Your task to perform on an android device: Open Youtube and go to the subscriptions tab Image 0: 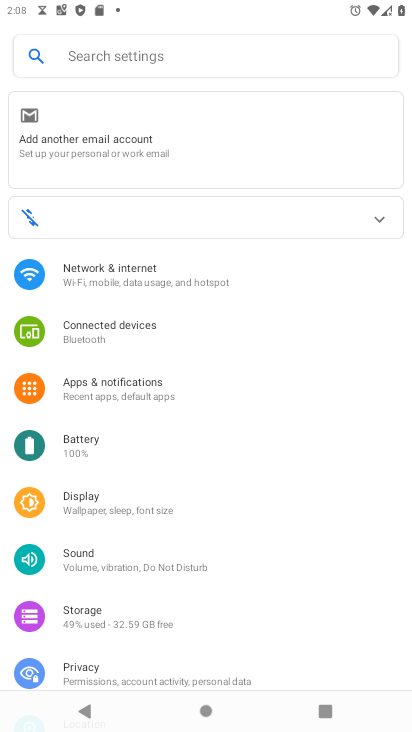
Step 0: press home button
Your task to perform on an android device: Open Youtube and go to the subscriptions tab Image 1: 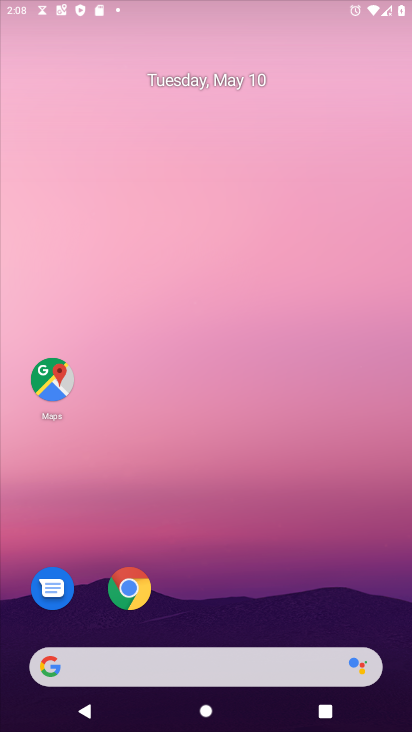
Step 1: drag from (280, 616) to (277, 305)
Your task to perform on an android device: Open Youtube and go to the subscriptions tab Image 2: 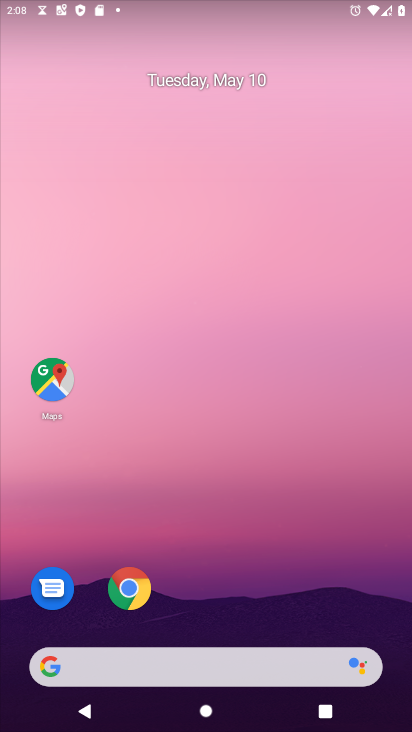
Step 2: drag from (238, 655) to (287, 280)
Your task to perform on an android device: Open Youtube and go to the subscriptions tab Image 3: 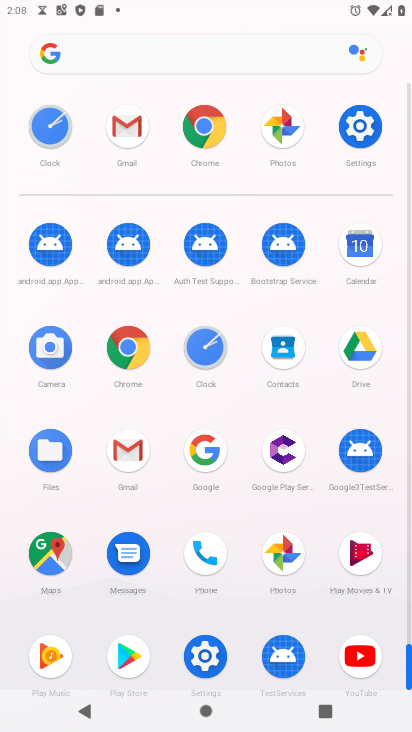
Step 3: click (355, 650)
Your task to perform on an android device: Open Youtube and go to the subscriptions tab Image 4: 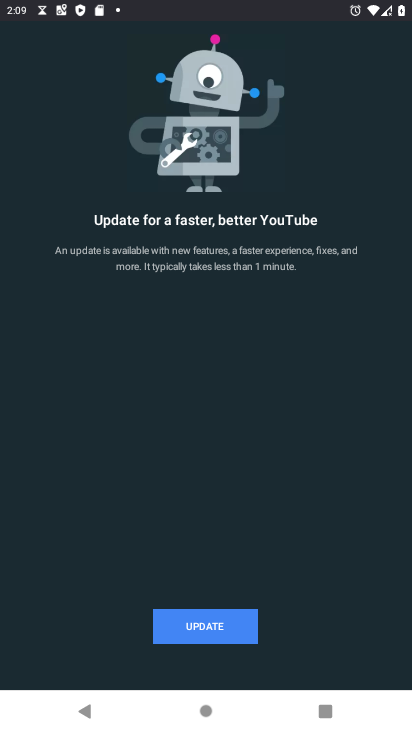
Step 4: task complete